Your task to perform on an android device: check out phone information Image 0: 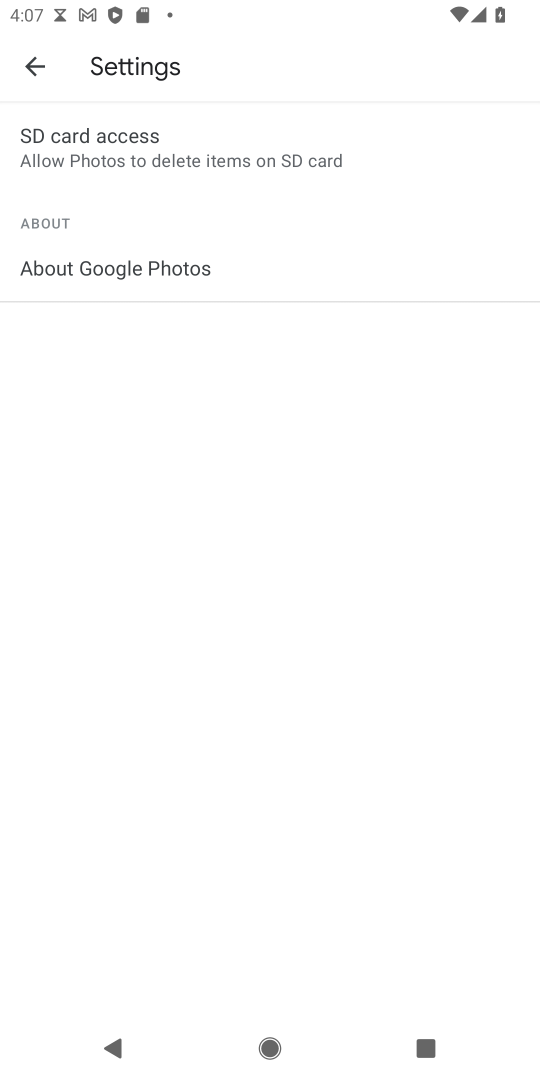
Step 0: click (31, 66)
Your task to perform on an android device: check out phone information Image 1: 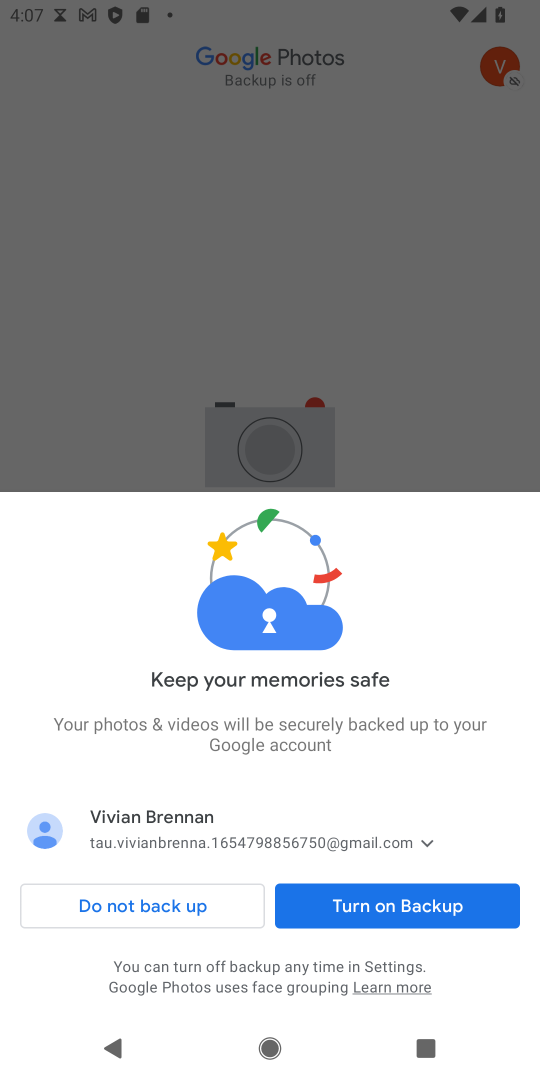
Step 1: press home button
Your task to perform on an android device: check out phone information Image 2: 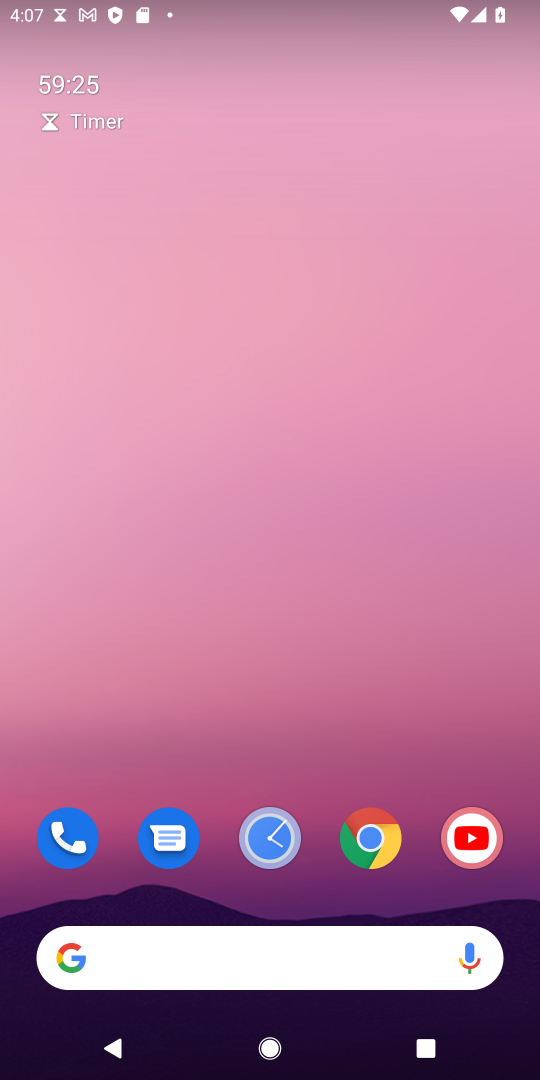
Step 2: drag from (312, 797) to (184, 14)
Your task to perform on an android device: check out phone information Image 3: 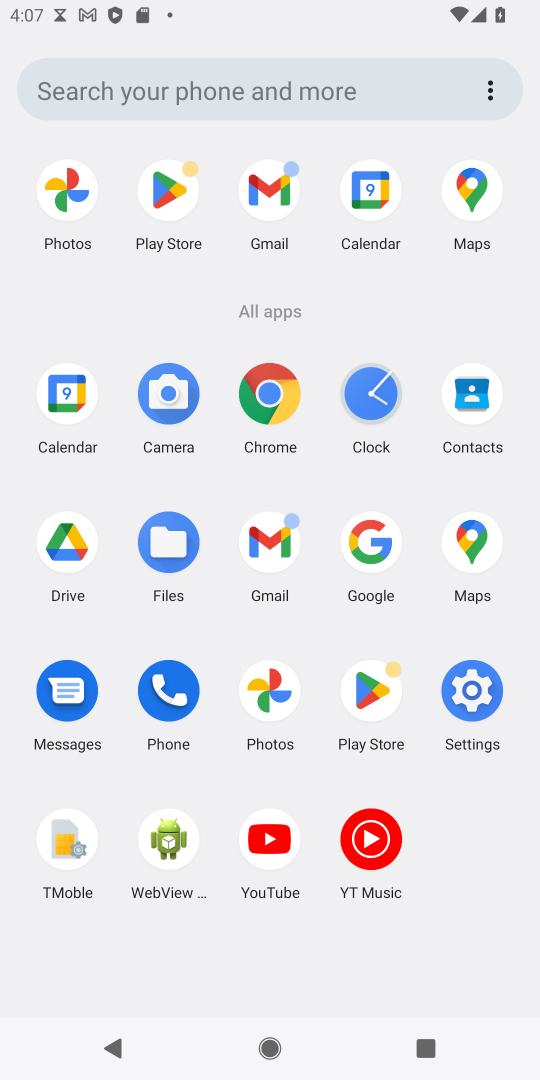
Step 3: click (479, 715)
Your task to perform on an android device: check out phone information Image 4: 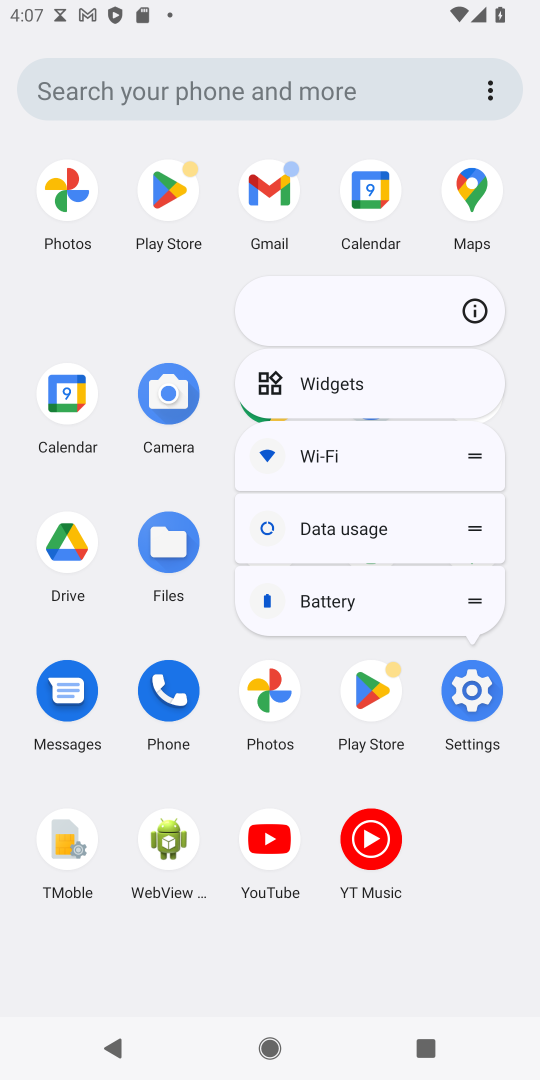
Step 4: click (477, 706)
Your task to perform on an android device: check out phone information Image 5: 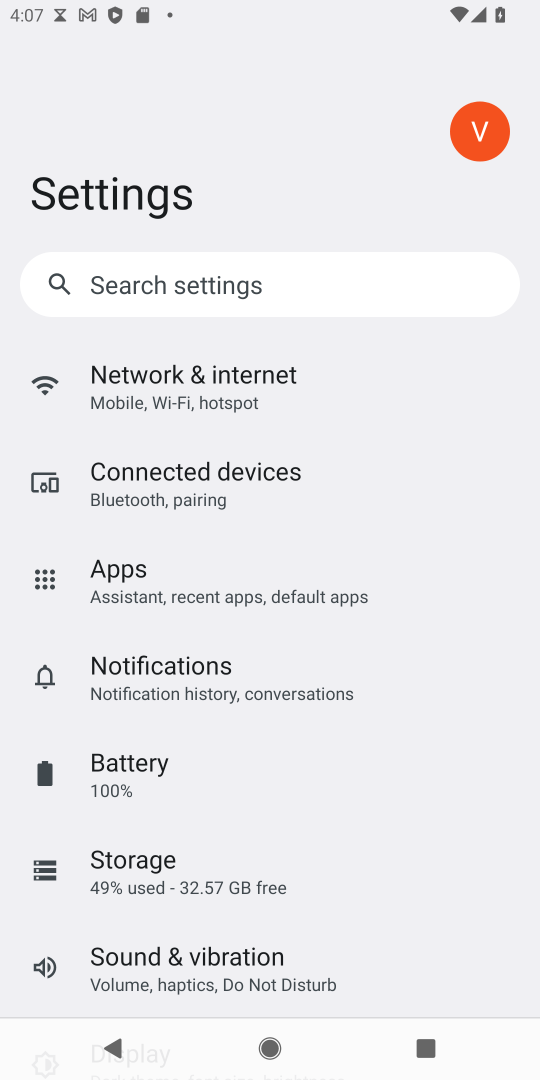
Step 5: drag from (283, 926) to (250, 232)
Your task to perform on an android device: check out phone information Image 6: 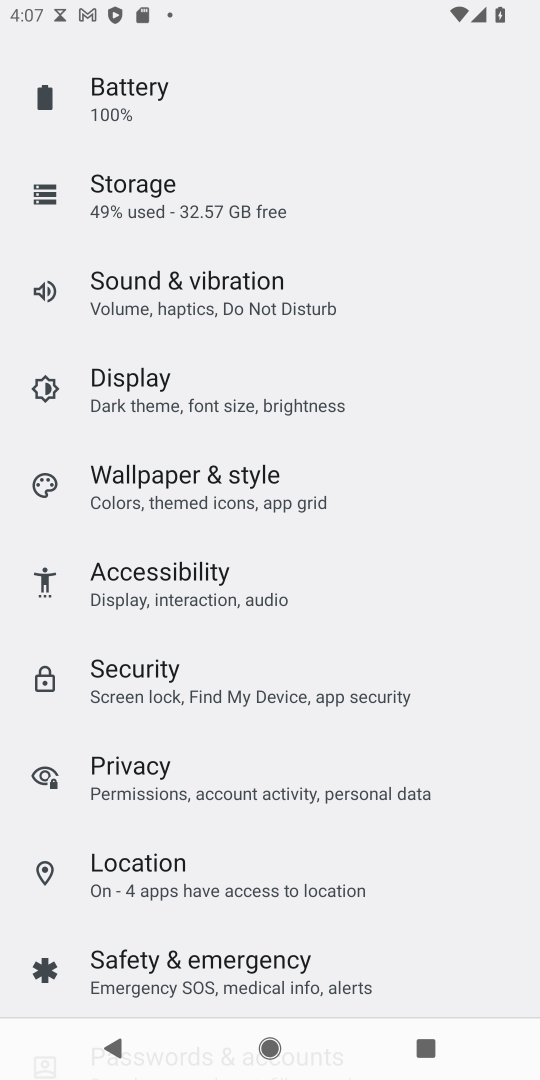
Step 6: drag from (420, 916) to (343, 284)
Your task to perform on an android device: check out phone information Image 7: 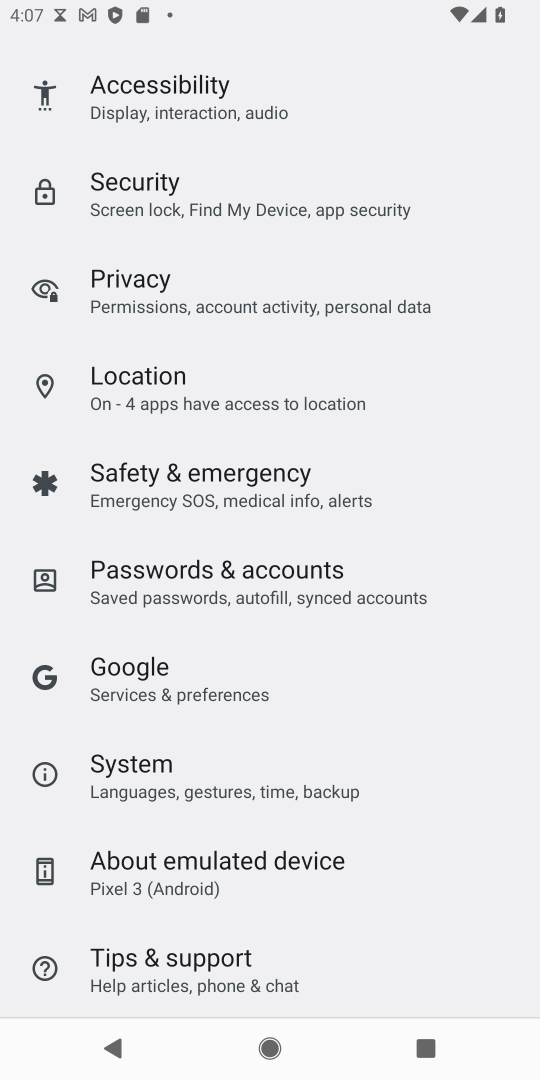
Step 7: drag from (343, 960) to (287, 746)
Your task to perform on an android device: check out phone information Image 8: 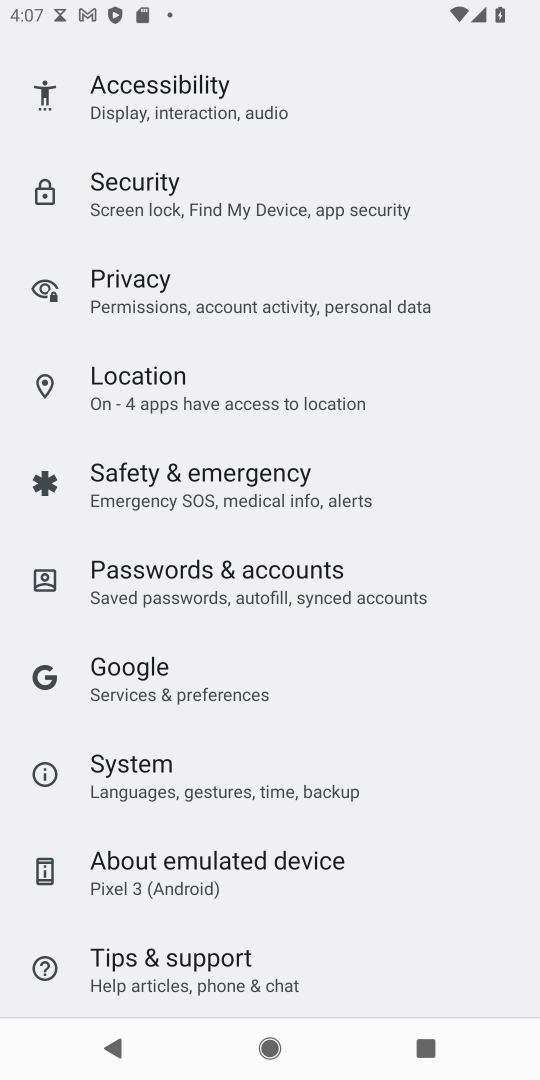
Step 8: click (260, 475)
Your task to perform on an android device: check out phone information Image 9: 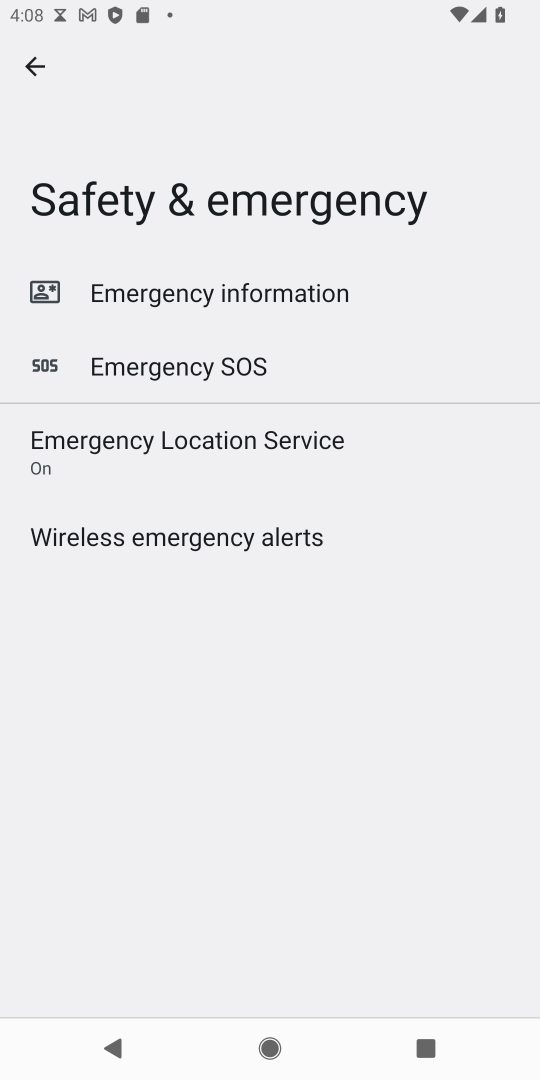
Step 9: click (381, 280)
Your task to perform on an android device: check out phone information Image 10: 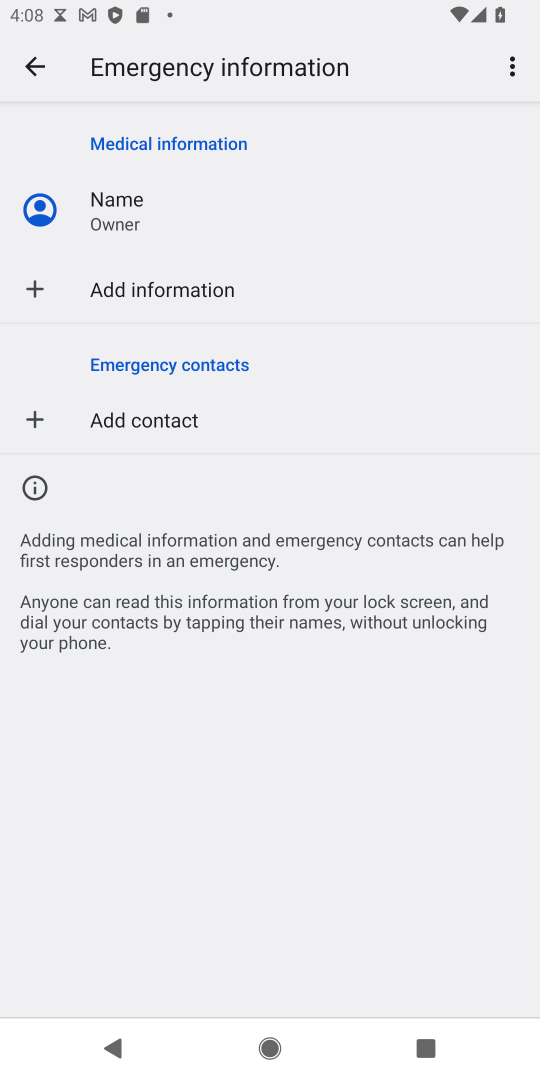
Step 10: task complete